Your task to perform on an android device: turn vacation reply on in the gmail app Image 0: 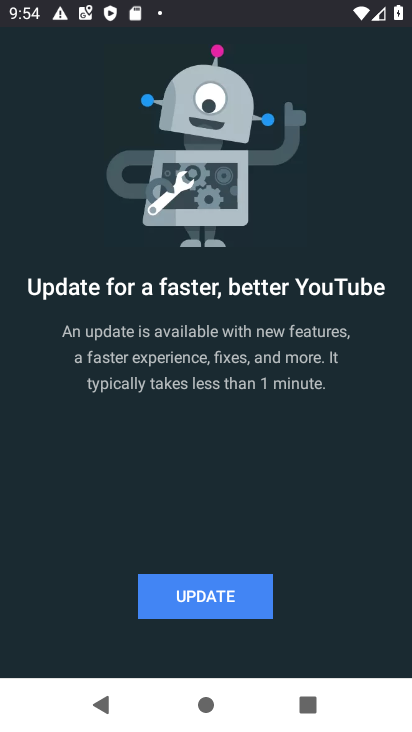
Step 0: press home button
Your task to perform on an android device: turn vacation reply on in the gmail app Image 1: 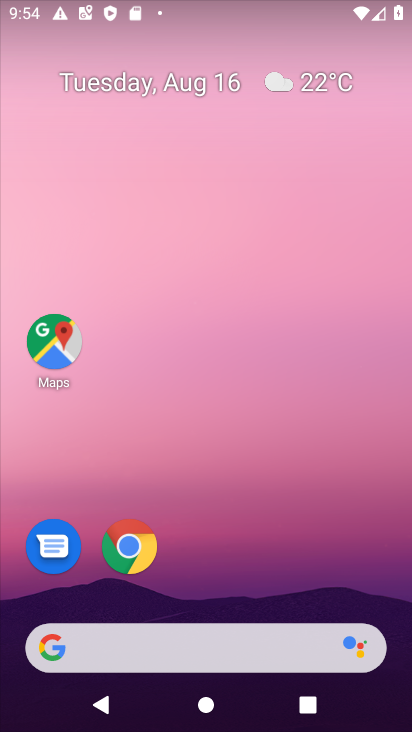
Step 1: drag from (197, 579) to (311, 7)
Your task to perform on an android device: turn vacation reply on in the gmail app Image 2: 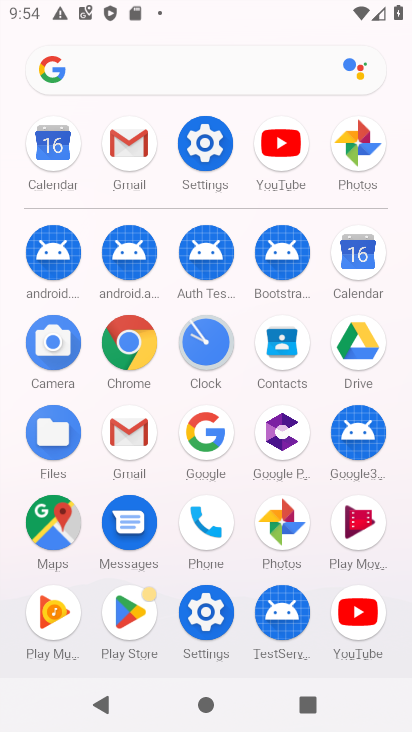
Step 2: click (131, 140)
Your task to perform on an android device: turn vacation reply on in the gmail app Image 3: 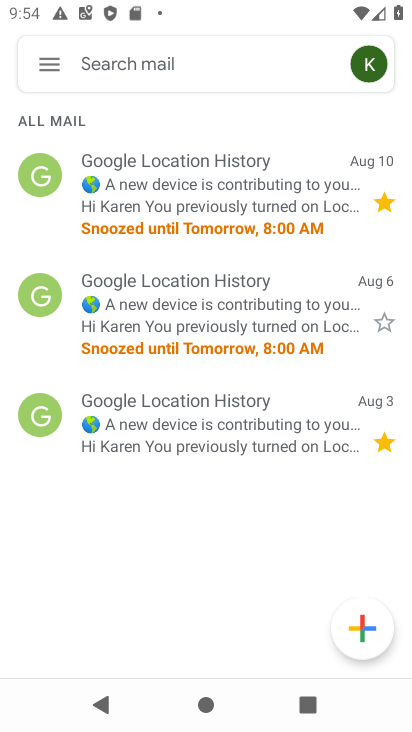
Step 3: click (48, 57)
Your task to perform on an android device: turn vacation reply on in the gmail app Image 4: 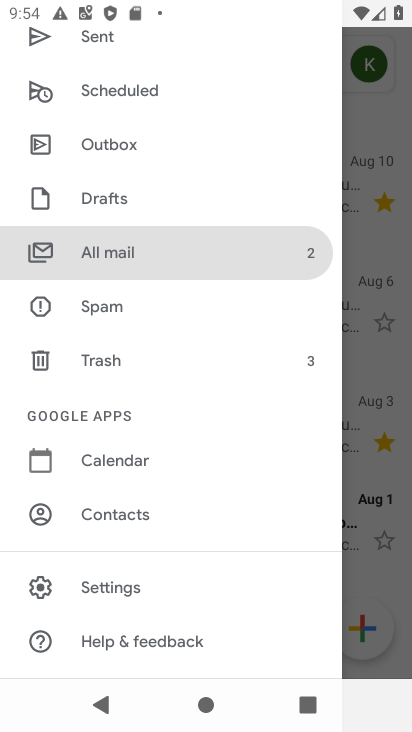
Step 4: click (123, 590)
Your task to perform on an android device: turn vacation reply on in the gmail app Image 5: 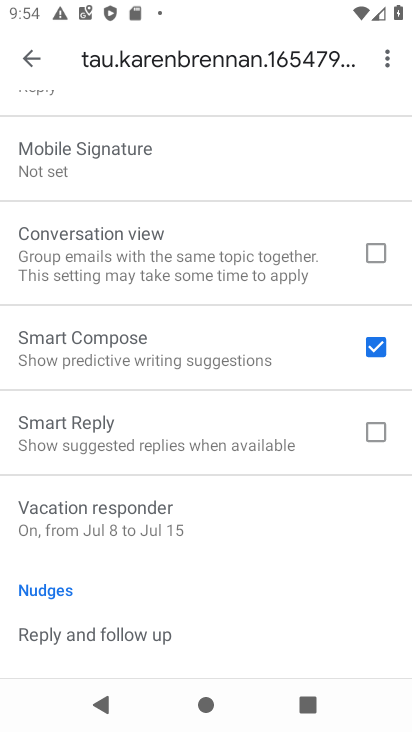
Step 5: click (195, 513)
Your task to perform on an android device: turn vacation reply on in the gmail app Image 6: 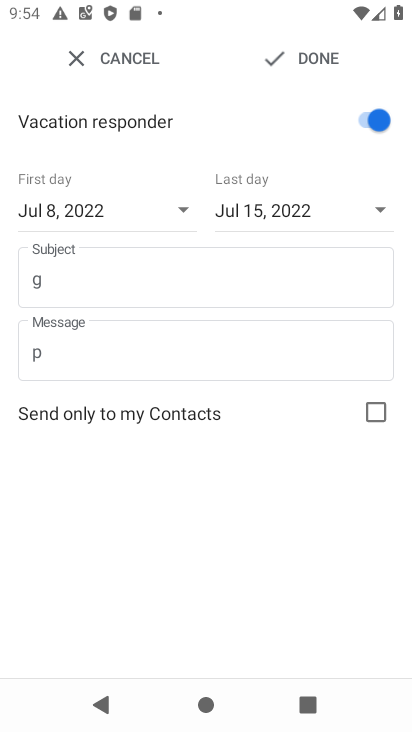
Step 6: task complete